Your task to perform on an android device: Open Youtube and go to "Your channel" Image 0: 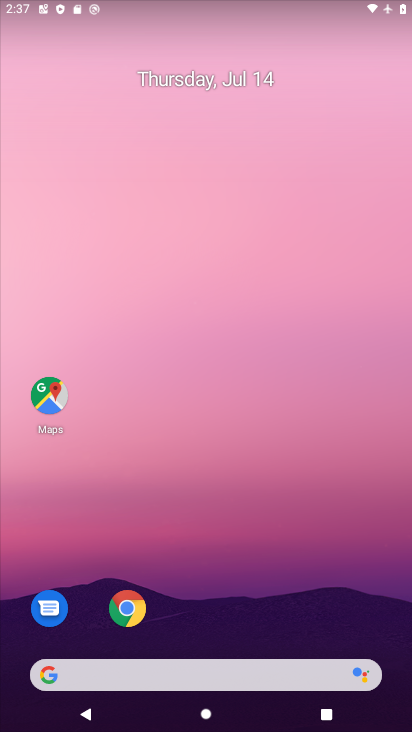
Step 0: drag from (270, 527) to (303, 0)
Your task to perform on an android device: Open Youtube and go to "Your channel" Image 1: 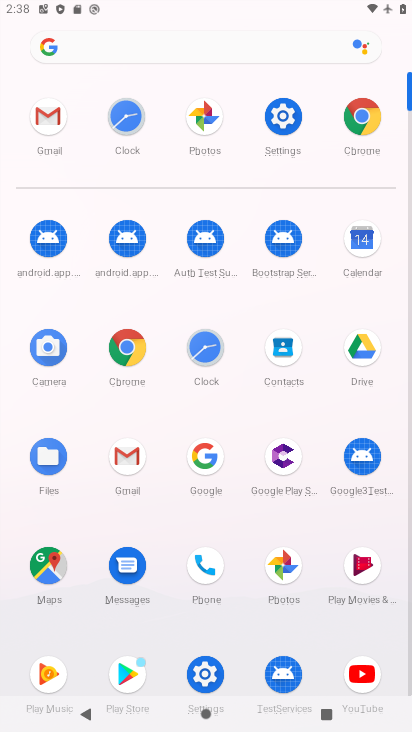
Step 1: click (351, 679)
Your task to perform on an android device: Open Youtube and go to "Your channel" Image 2: 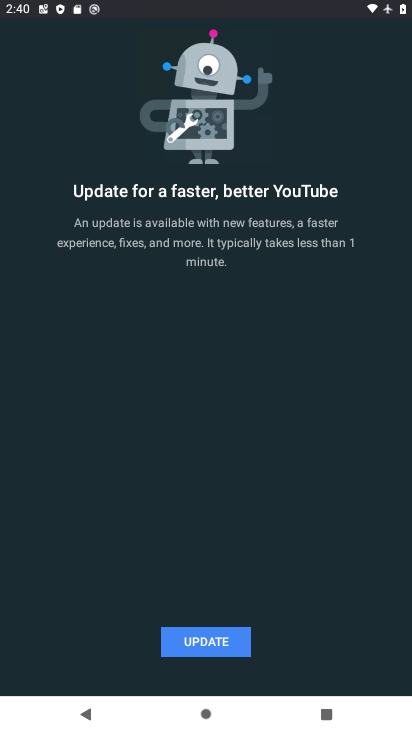
Step 2: task complete